Your task to perform on an android device: Open Yahoo.com Image 0: 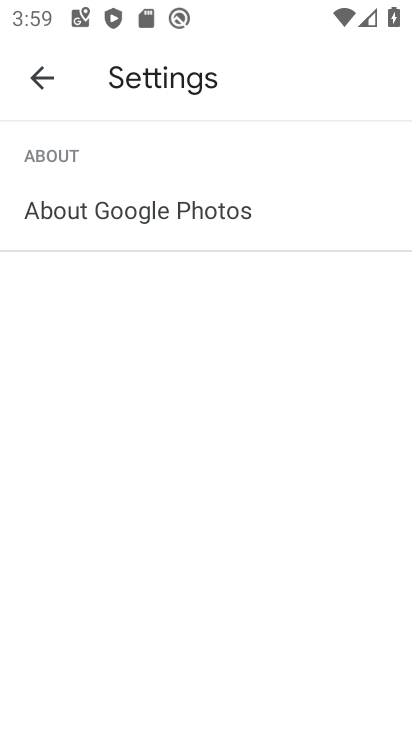
Step 0: press home button
Your task to perform on an android device: Open Yahoo.com Image 1: 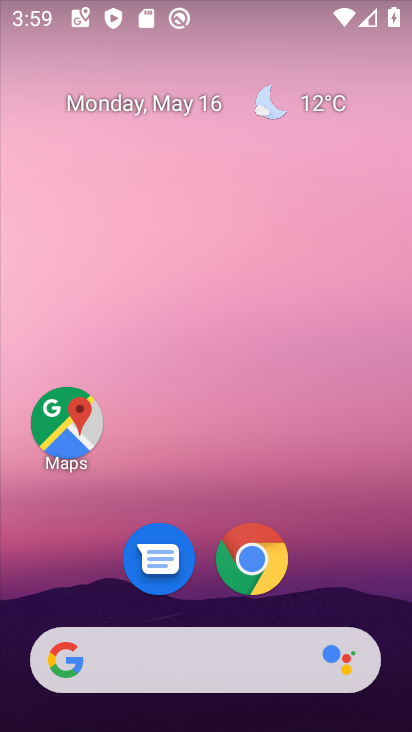
Step 1: click (241, 565)
Your task to perform on an android device: Open Yahoo.com Image 2: 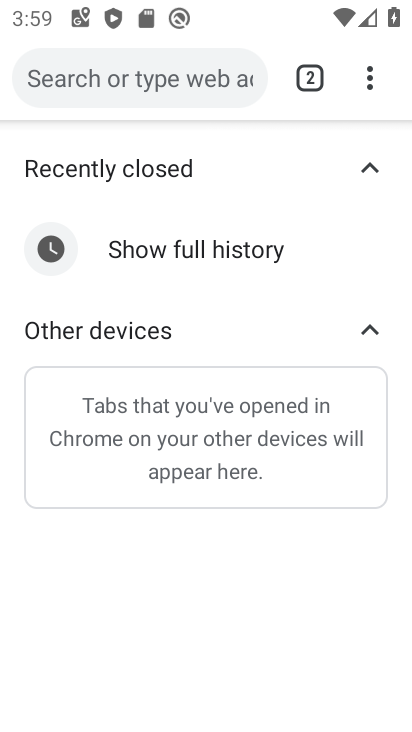
Step 2: click (161, 74)
Your task to perform on an android device: Open Yahoo.com Image 3: 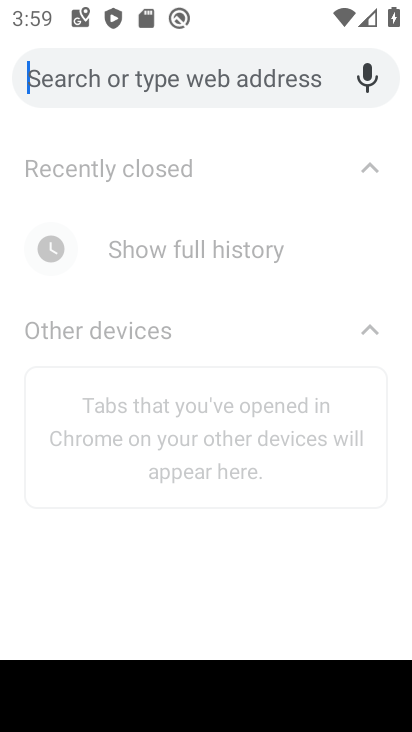
Step 3: type "yahoo.com"
Your task to perform on an android device: Open Yahoo.com Image 4: 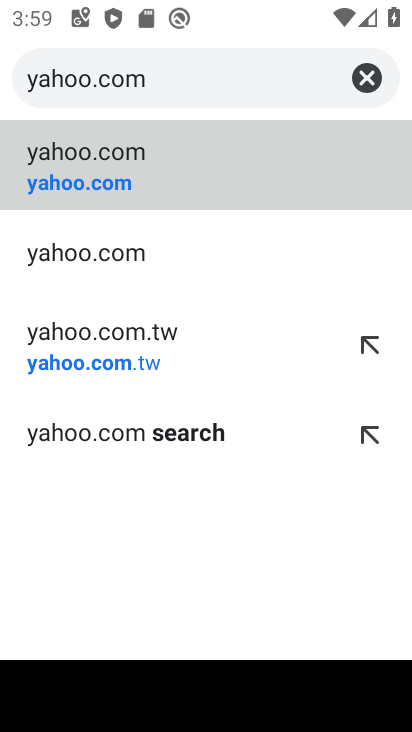
Step 4: click (166, 267)
Your task to perform on an android device: Open Yahoo.com Image 5: 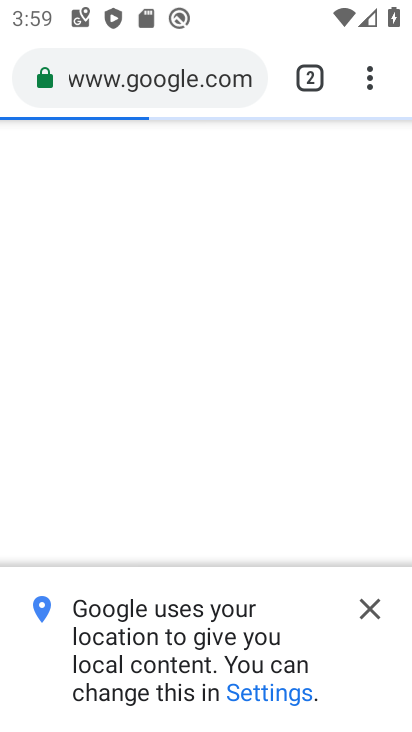
Step 5: task complete